Your task to perform on an android device: Clear the shopping cart on target. Image 0: 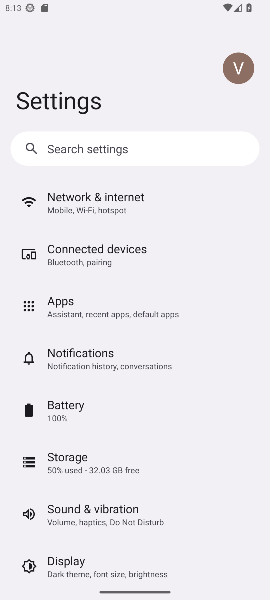
Step 0: press home button
Your task to perform on an android device: Clear the shopping cart on target. Image 1: 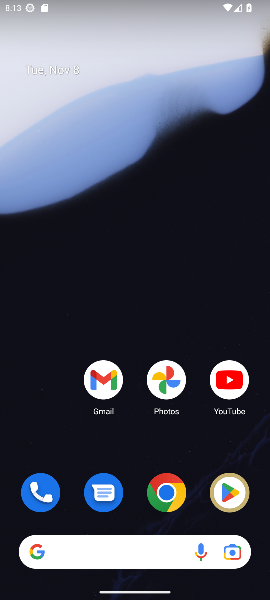
Step 1: click (175, 478)
Your task to perform on an android device: Clear the shopping cart on target. Image 2: 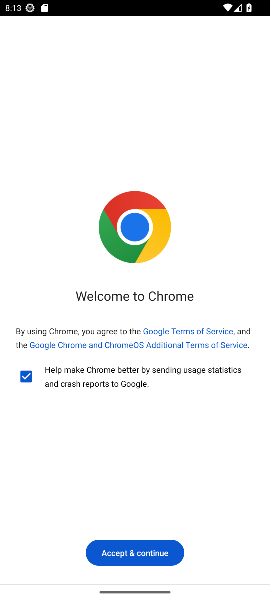
Step 2: click (166, 556)
Your task to perform on an android device: Clear the shopping cart on target. Image 3: 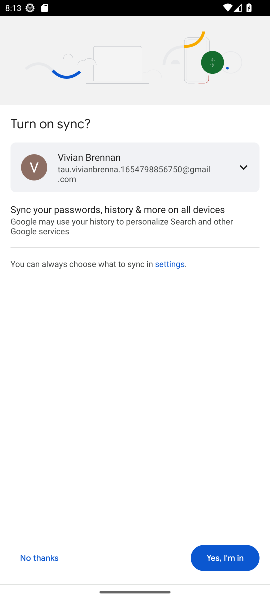
Step 3: click (238, 549)
Your task to perform on an android device: Clear the shopping cart on target. Image 4: 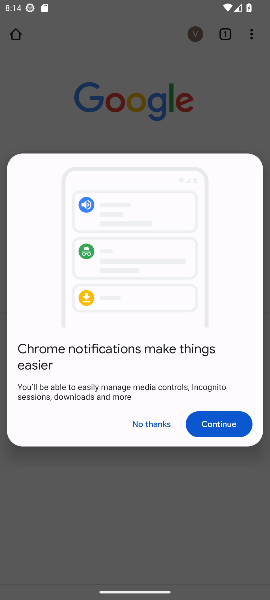
Step 4: click (229, 421)
Your task to perform on an android device: Clear the shopping cart on target. Image 5: 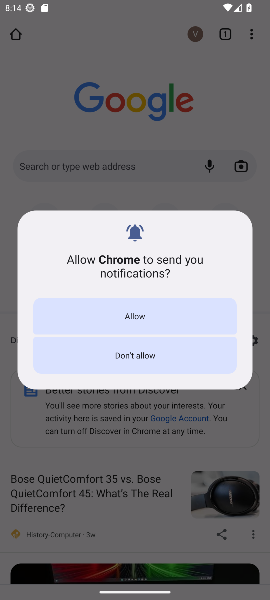
Step 5: click (141, 313)
Your task to perform on an android device: Clear the shopping cart on target. Image 6: 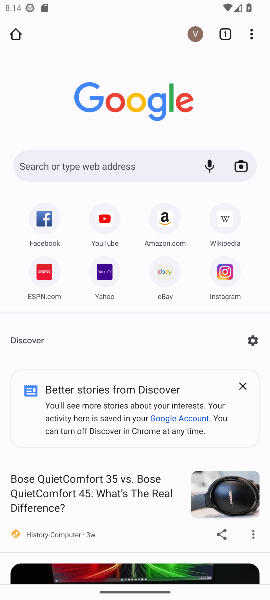
Step 6: click (90, 159)
Your task to perform on an android device: Clear the shopping cart on target. Image 7: 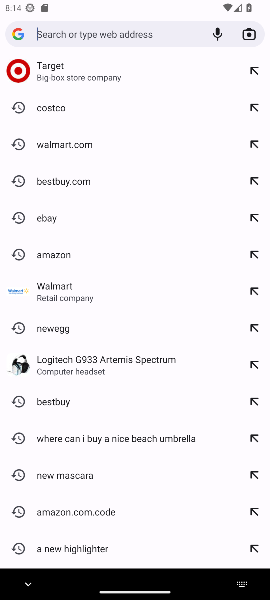
Step 7: click (81, 66)
Your task to perform on an android device: Clear the shopping cart on target. Image 8: 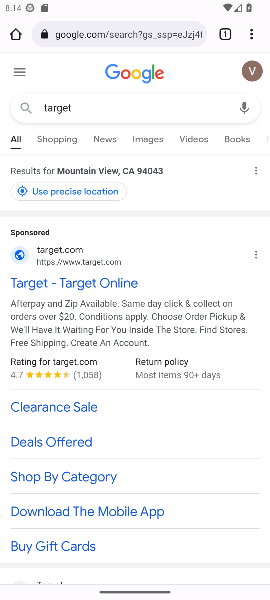
Step 8: click (23, 288)
Your task to perform on an android device: Clear the shopping cart on target. Image 9: 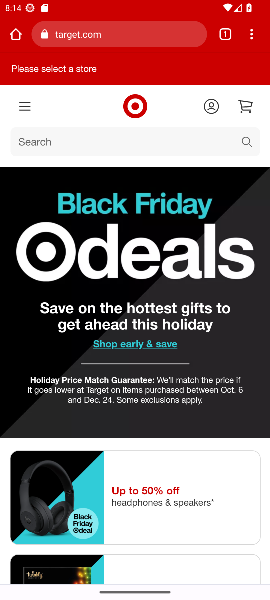
Step 9: click (240, 111)
Your task to perform on an android device: Clear the shopping cart on target. Image 10: 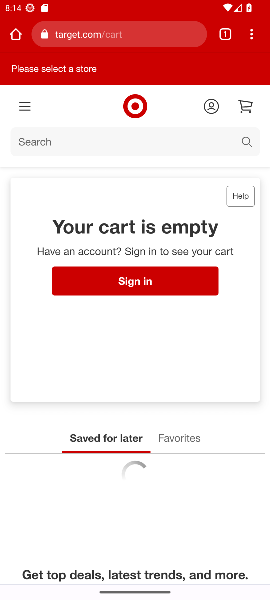
Step 10: task complete